Your task to perform on an android device: delete the emails in spam in the gmail app Image 0: 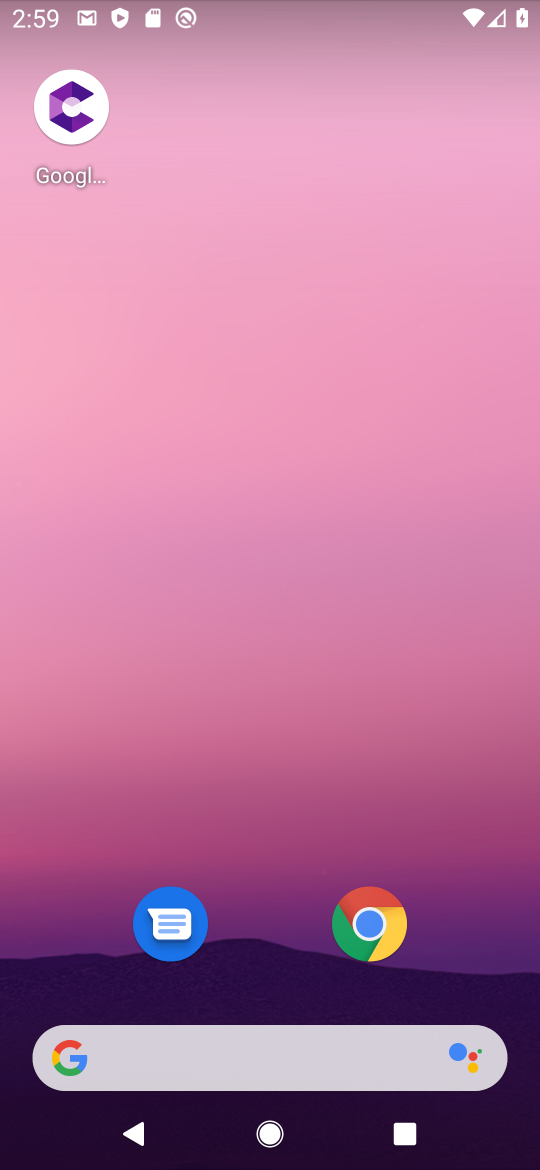
Step 0: drag from (269, 890) to (264, 117)
Your task to perform on an android device: delete the emails in spam in the gmail app Image 1: 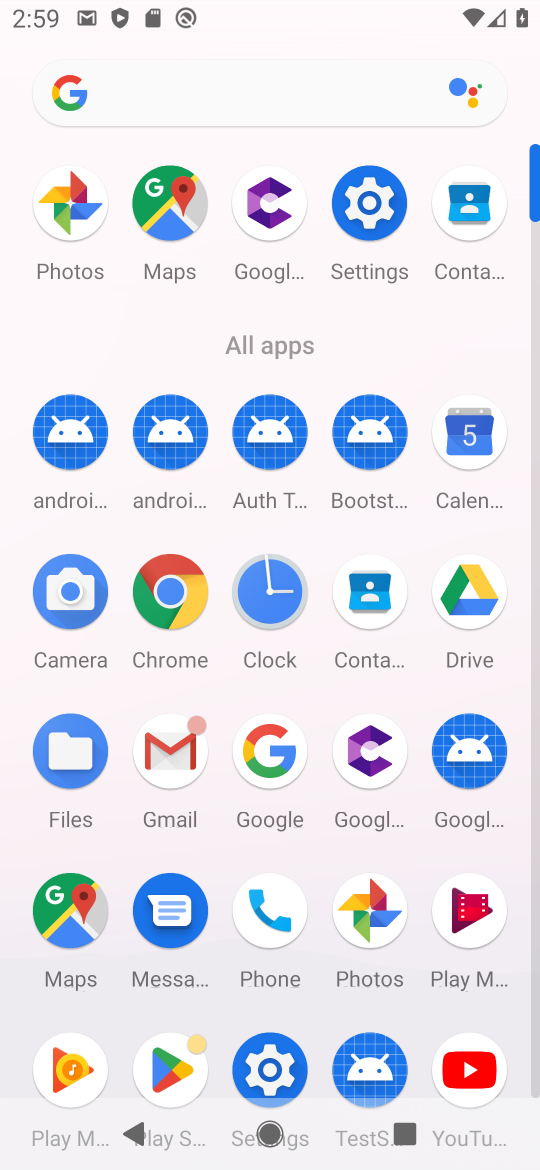
Step 1: click (190, 760)
Your task to perform on an android device: delete the emails in spam in the gmail app Image 2: 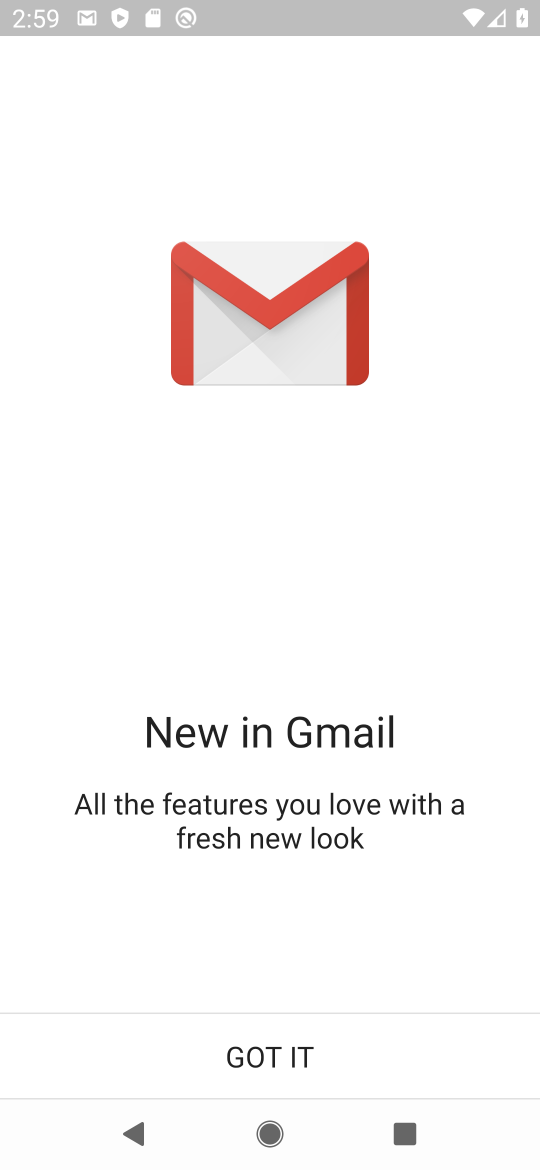
Step 2: click (285, 1056)
Your task to perform on an android device: delete the emails in spam in the gmail app Image 3: 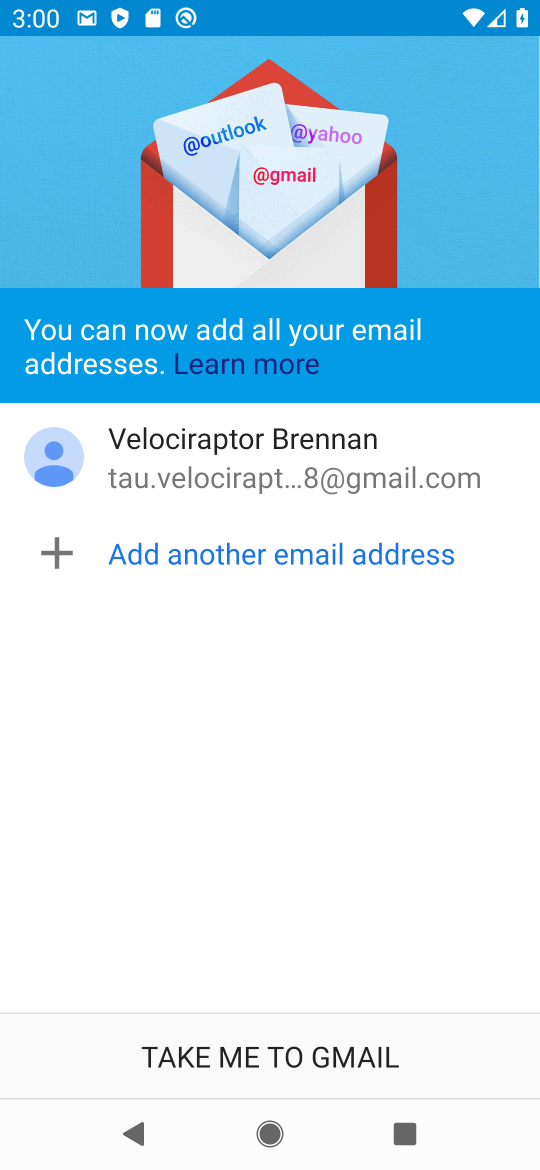
Step 3: click (346, 1059)
Your task to perform on an android device: delete the emails in spam in the gmail app Image 4: 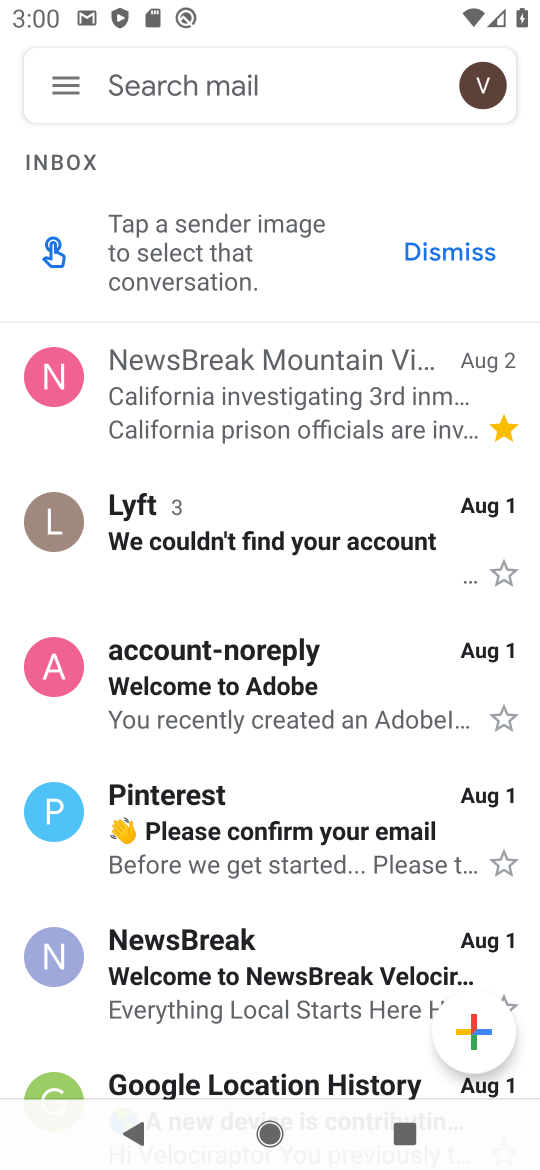
Step 4: click (68, 86)
Your task to perform on an android device: delete the emails in spam in the gmail app Image 5: 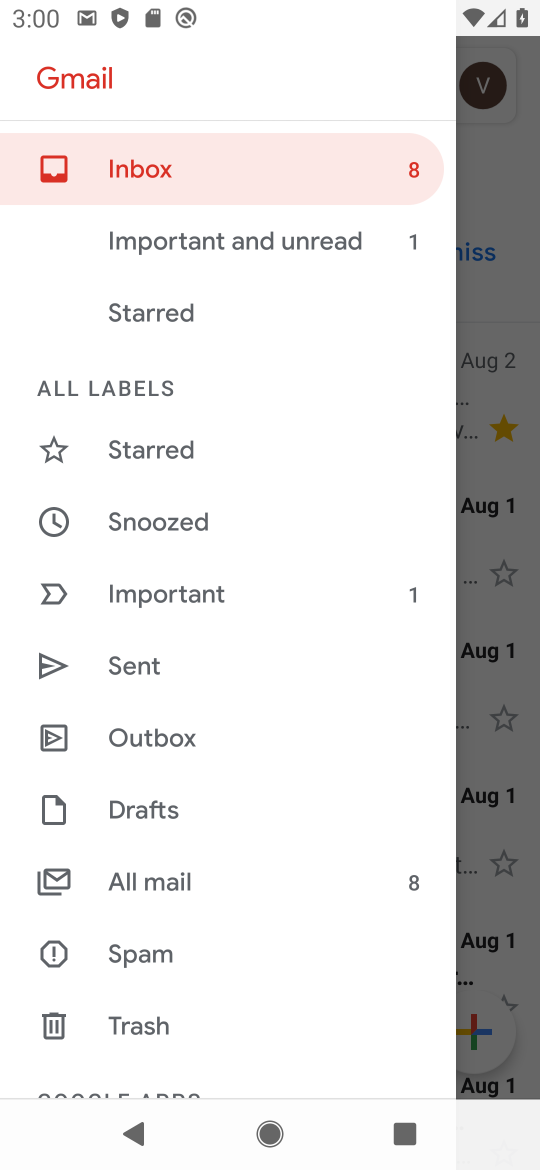
Step 5: click (168, 966)
Your task to perform on an android device: delete the emails in spam in the gmail app Image 6: 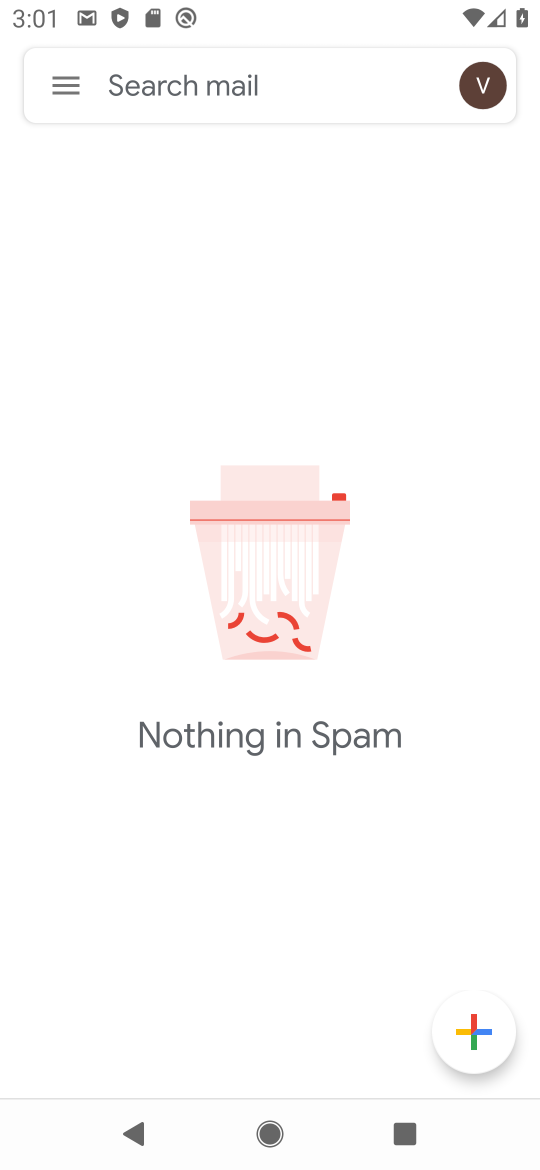
Step 6: task complete